Your task to perform on an android device: Open calendar and show me the fourth week of next month Image 0: 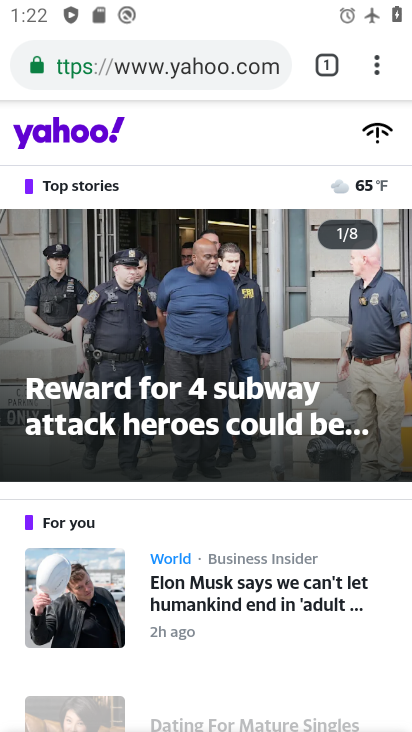
Step 0: press home button
Your task to perform on an android device: Open calendar and show me the fourth week of next month Image 1: 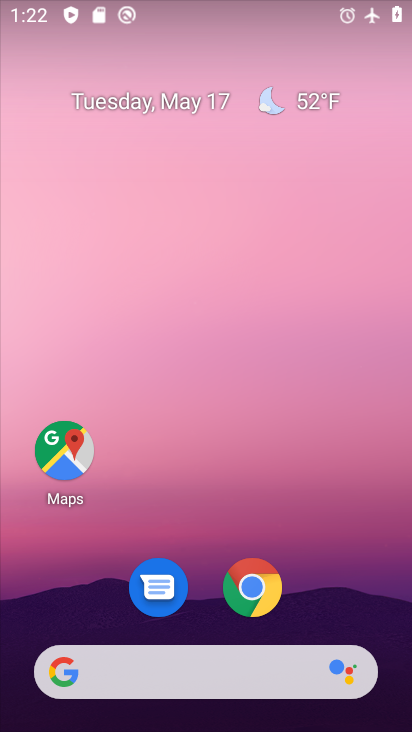
Step 1: drag from (345, 565) to (286, 191)
Your task to perform on an android device: Open calendar and show me the fourth week of next month Image 2: 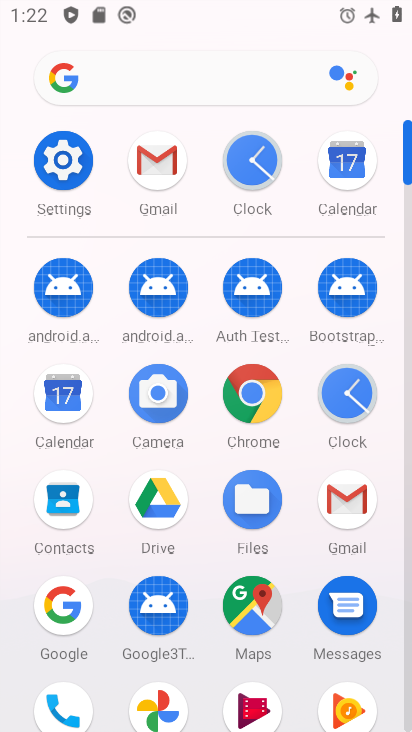
Step 2: click (46, 417)
Your task to perform on an android device: Open calendar and show me the fourth week of next month Image 3: 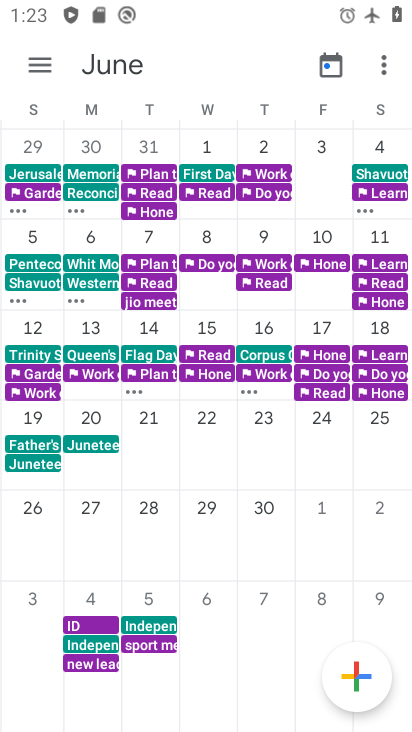
Step 3: task complete